Your task to perform on an android device: Go to internet settings Image 0: 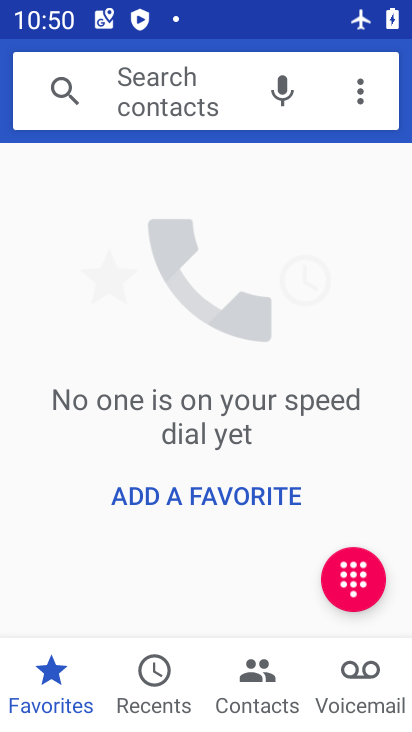
Step 0: press home button
Your task to perform on an android device: Go to internet settings Image 1: 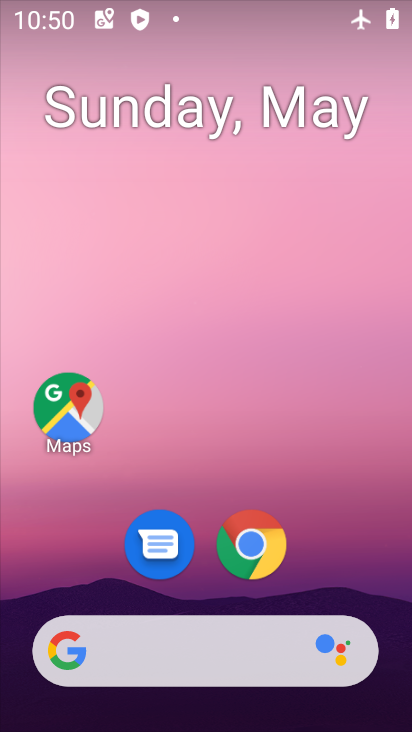
Step 1: drag from (329, 566) to (317, 259)
Your task to perform on an android device: Go to internet settings Image 2: 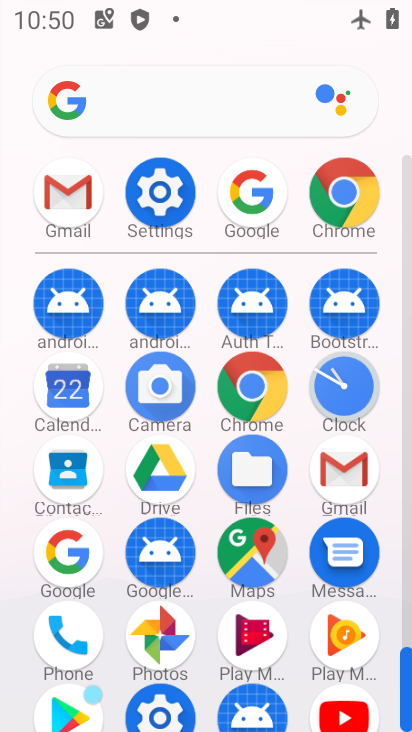
Step 2: click (174, 193)
Your task to perform on an android device: Go to internet settings Image 3: 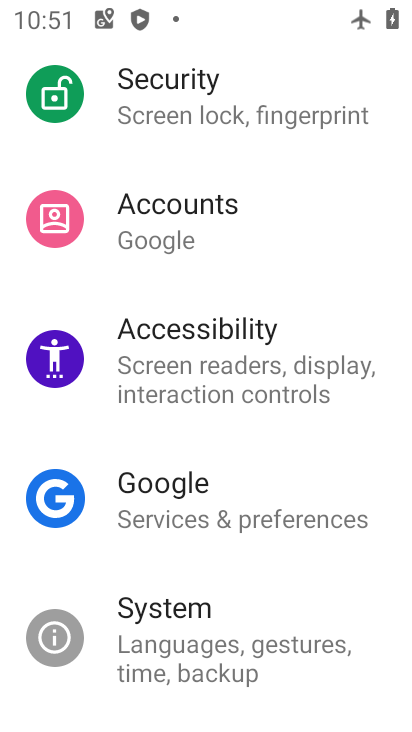
Step 3: drag from (304, 168) to (273, 635)
Your task to perform on an android device: Go to internet settings Image 4: 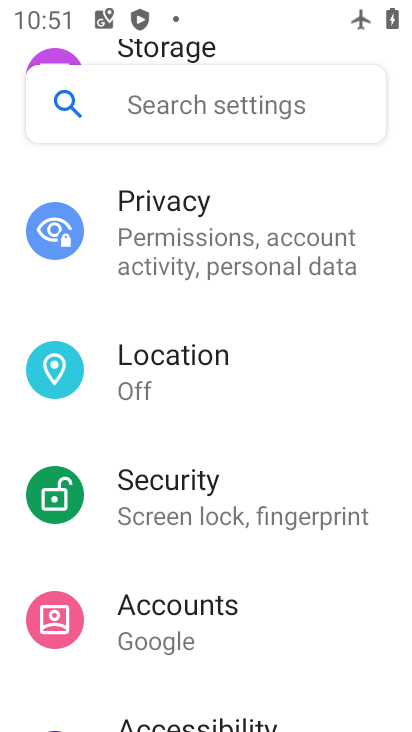
Step 4: drag from (195, 210) to (184, 617)
Your task to perform on an android device: Go to internet settings Image 5: 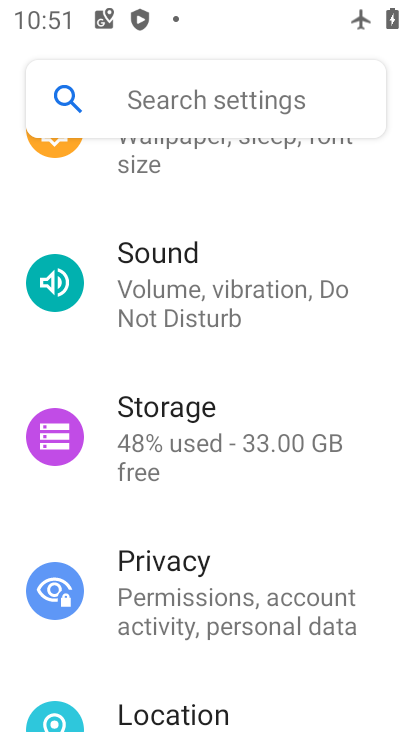
Step 5: drag from (206, 200) to (193, 615)
Your task to perform on an android device: Go to internet settings Image 6: 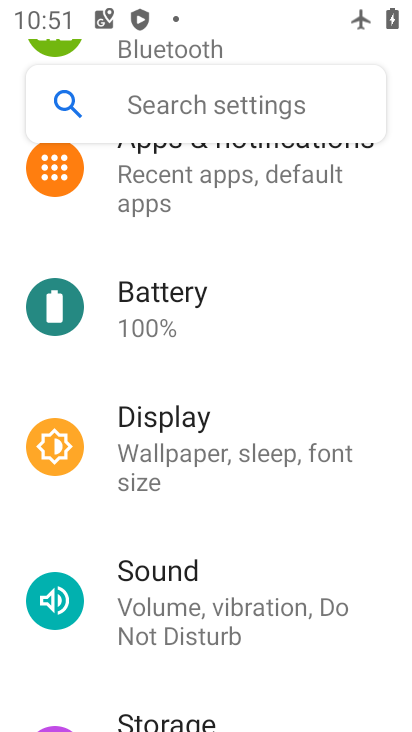
Step 6: drag from (224, 191) to (208, 493)
Your task to perform on an android device: Go to internet settings Image 7: 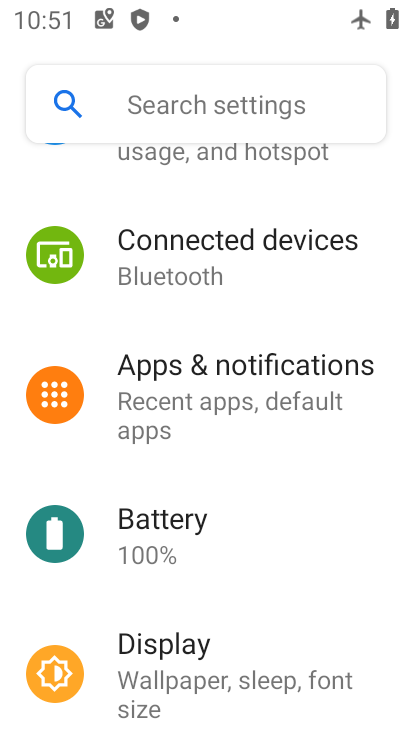
Step 7: drag from (240, 262) to (238, 634)
Your task to perform on an android device: Go to internet settings Image 8: 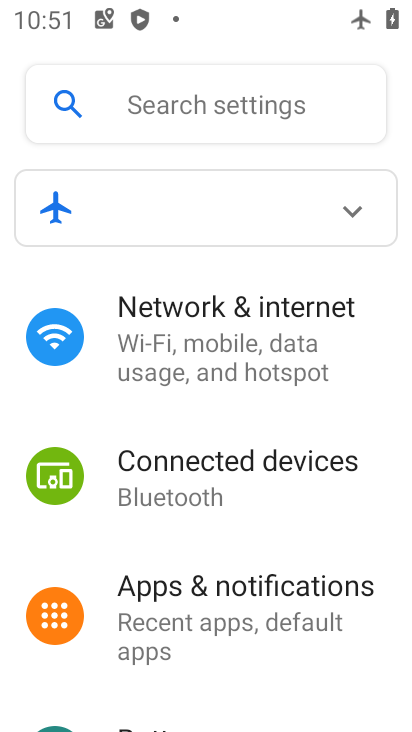
Step 8: click (221, 322)
Your task to perform on an android device: Go to internet settings Image 9: 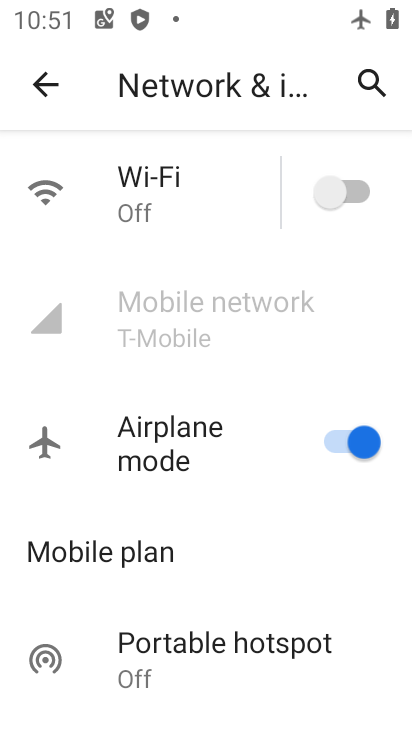
Step 9: task complete